Your task to perform on an android device: star an email in the gmail app Image 0: 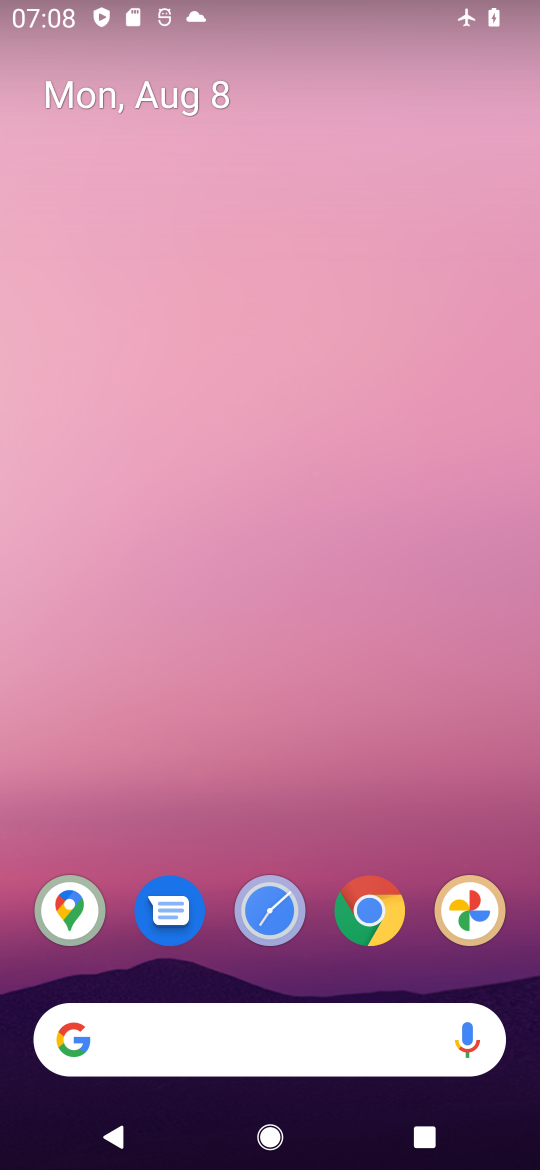
Step 0: drag from (251, 1042) to (209, 216)
Your task to perform on an android device: star an email in the gmail app Image 1: 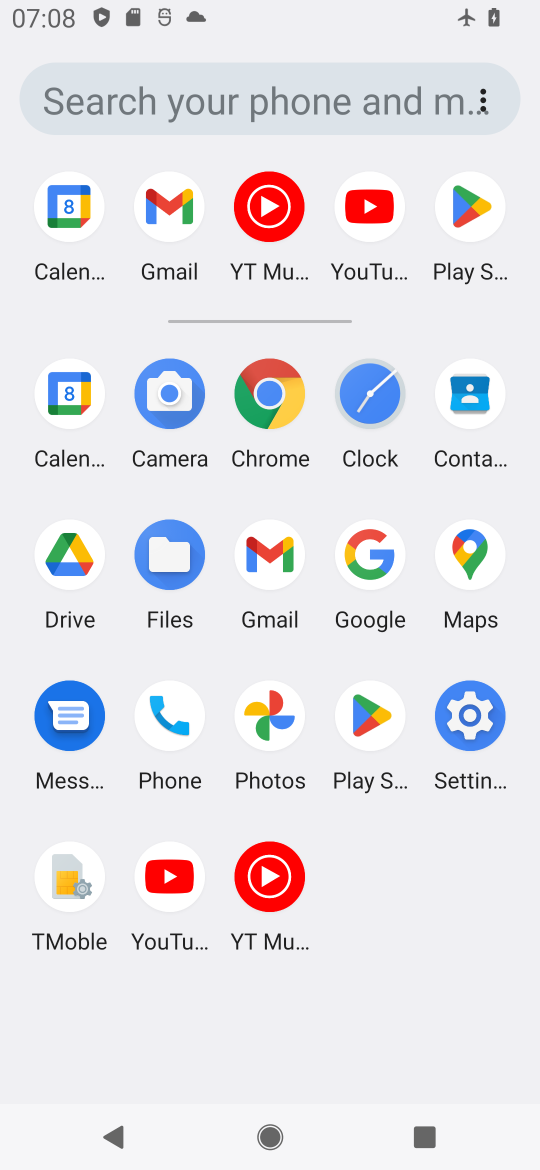
Step 1: click (172, 207)
Your task to perform on an android device: star an email in the gmail app Image 2: 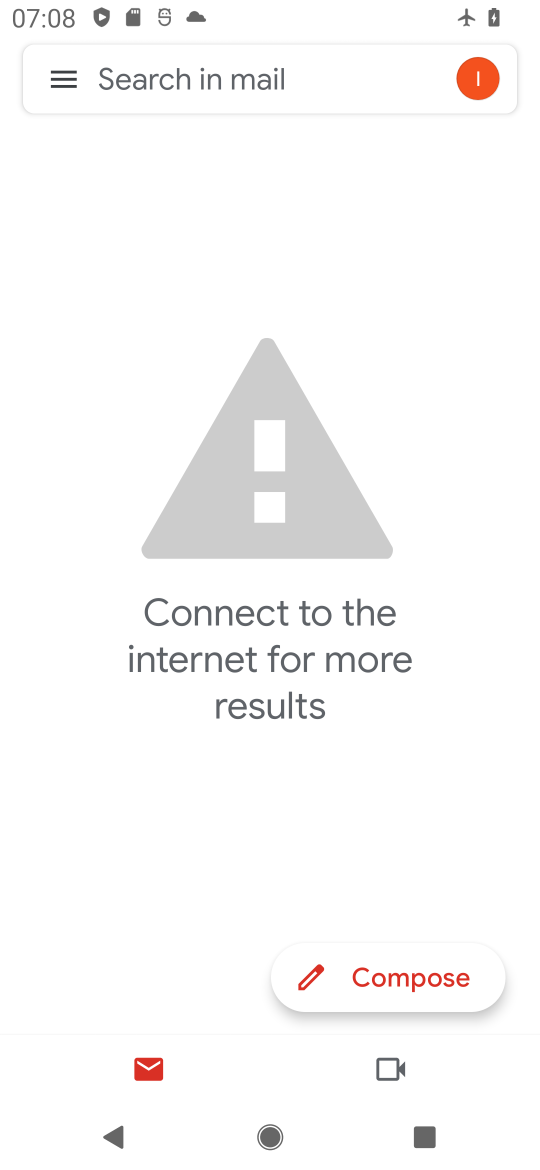
Step 2: click (67, 90)
Your task to perform on an android device: star an email in the gmail app Image 3: 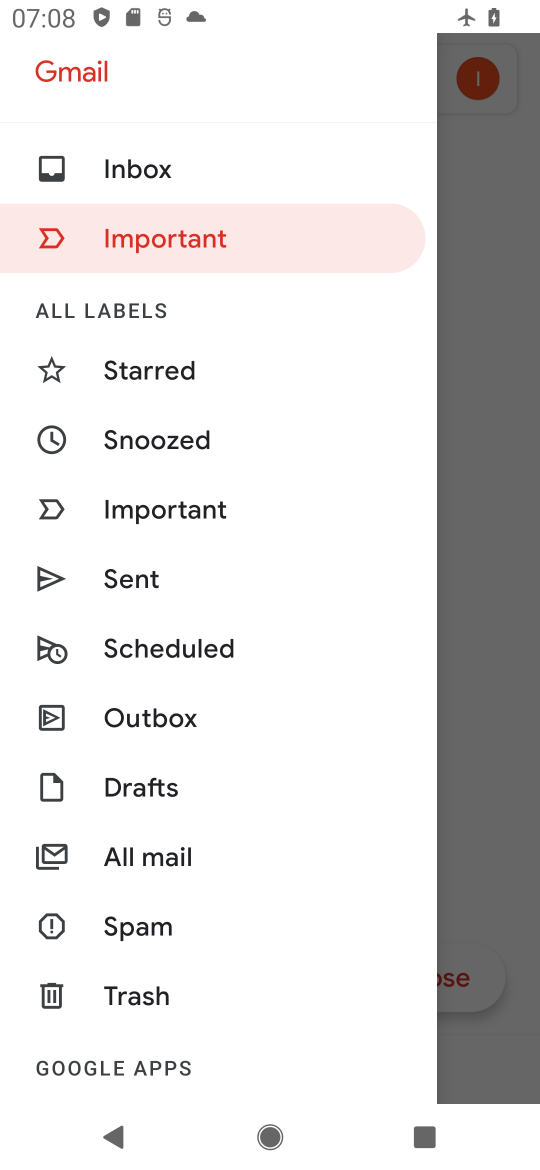
Step 3: click (155, 364)
Your task to perform on an android device: star an email in the gmail app Image 4: 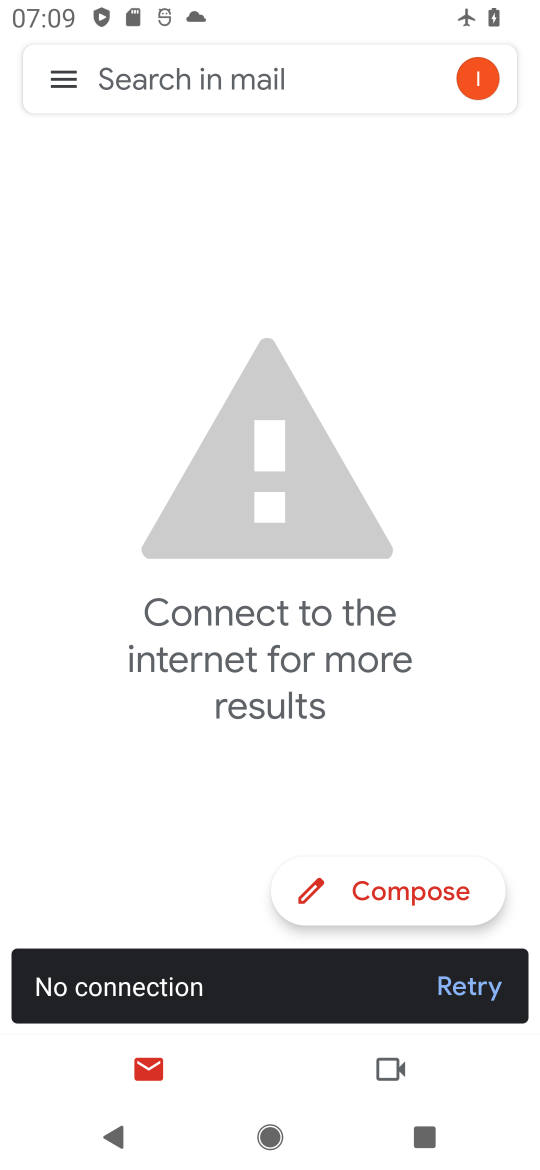
Step 4: click (64, 93)
Your task to perform on an android device: star an email in the gmail app Image 5: 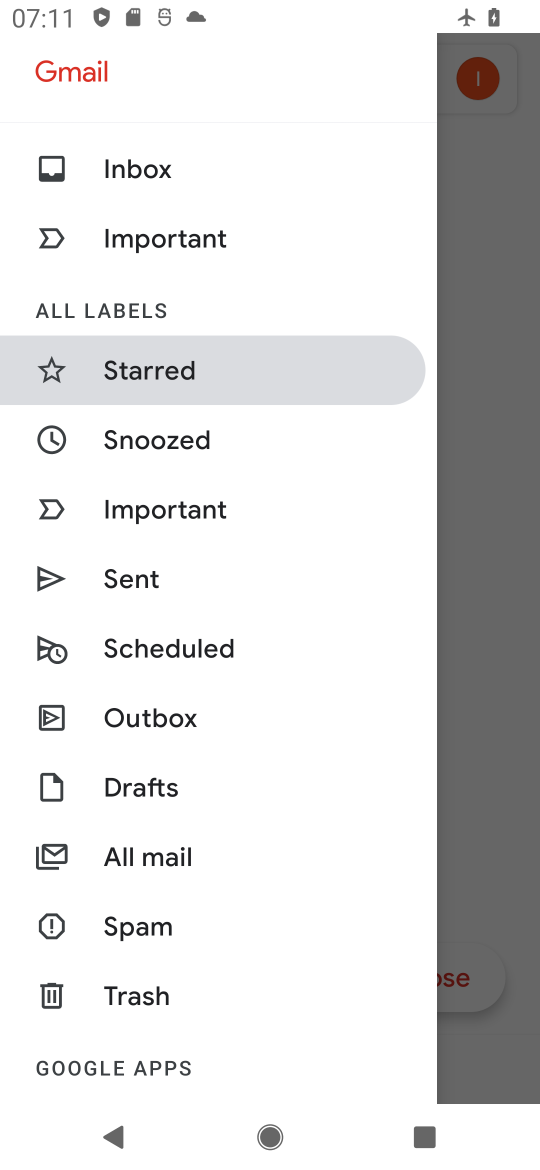
Step 5: click (198, 649)
Your task to perform on an android device: star an email in the gmail app Image 6: 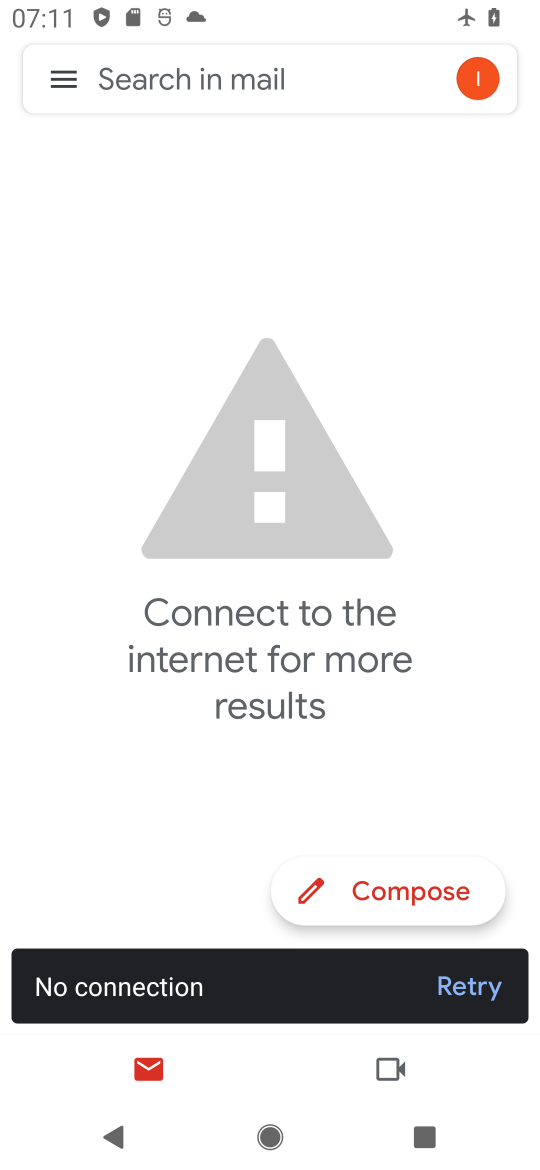
Step 6: task complete